Your task to perform on an android device: When is my next meeting? Image 0: 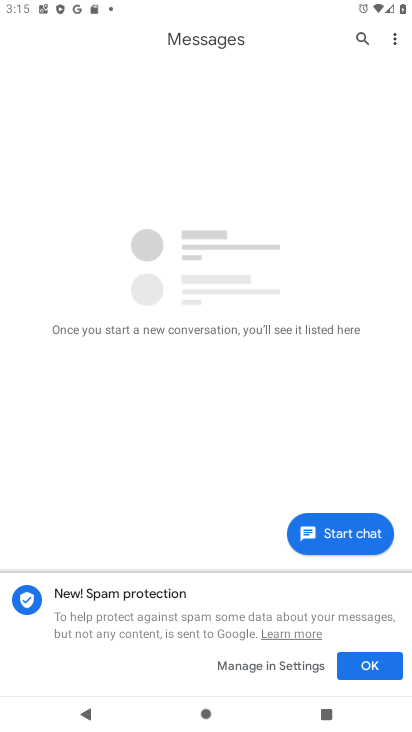
Step 0: press home button
Your task to perform on an android device: When is my next meeting? Image 1: 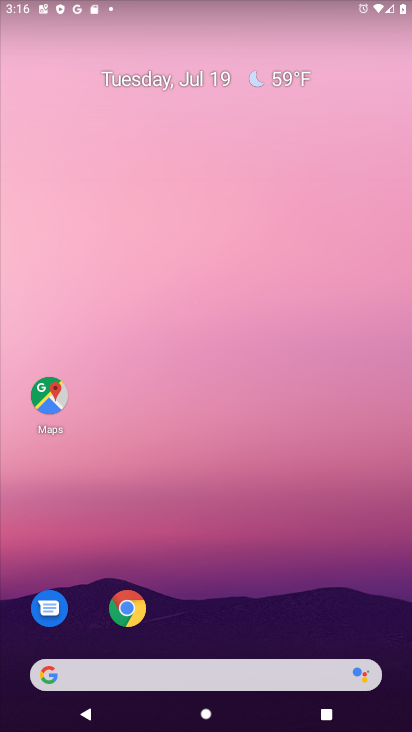
Step 1: drag from (277, 635) to (241, 165)
Your task to perform on an android device: When is my next meeting? Image 2: 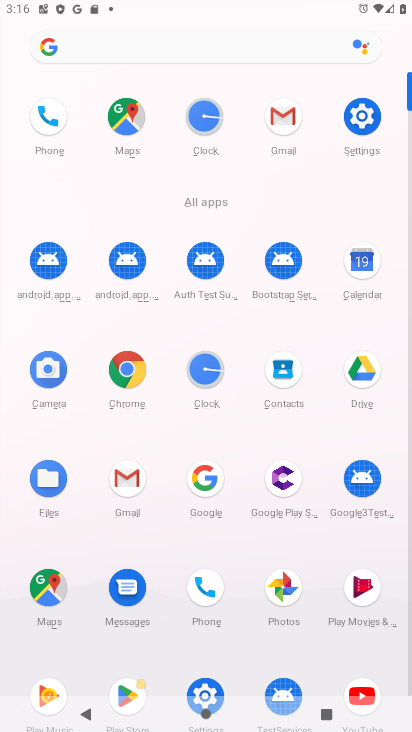
Step 2: click (365, 260)
Your task to perform on an android device: When is my next meeting? Image 3: 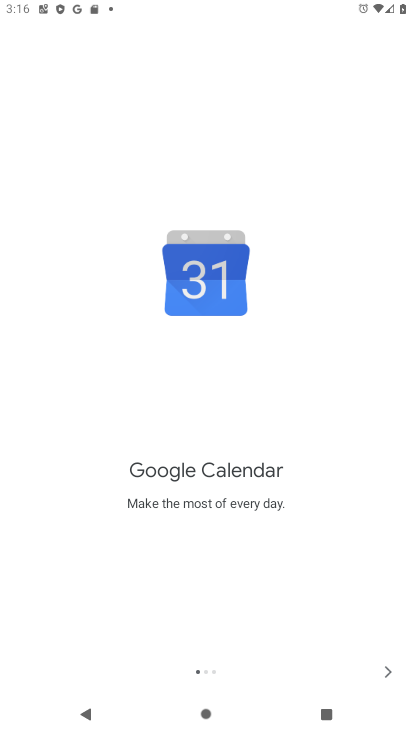
Step 3: click (388, 677)
Your task to perform on an android device: When is my next meeting? Image 4: 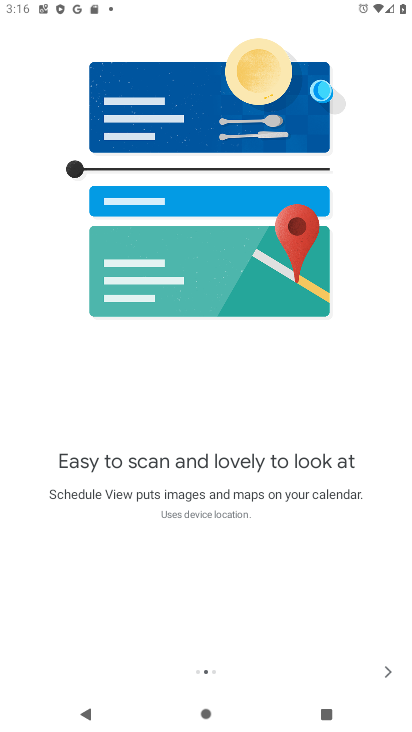
Step 4: click (388, 677)
Your task to perform on an android device: When is my next meeting? Image 5: 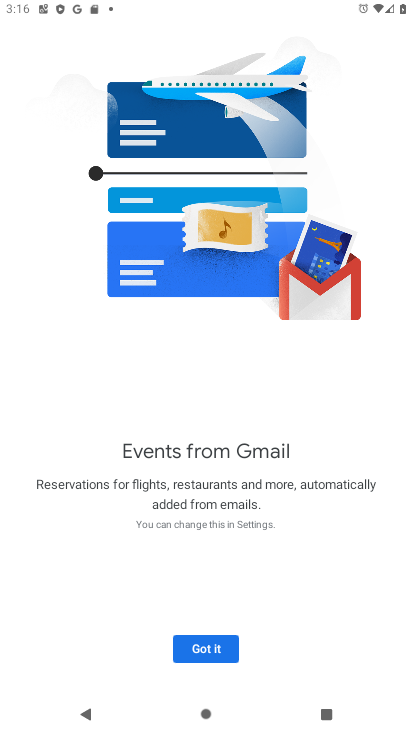
Step 5: click (219, 648)
Your task to perform on an android device: When is my next meeting? Image 6: 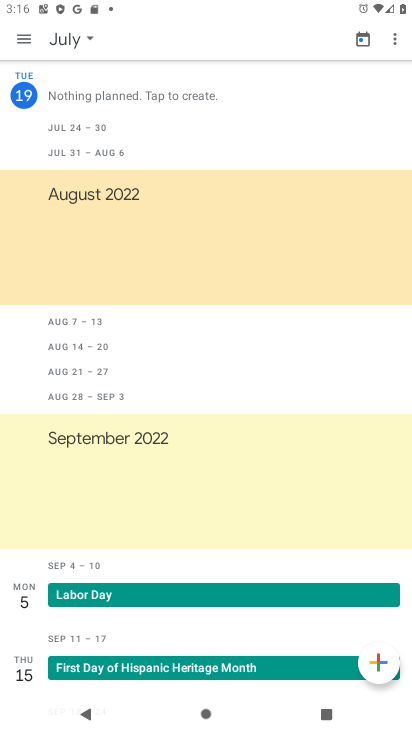
Step 6: click (19, 45)
Your task to perform on an android device: When is my next meeting? Image 7: 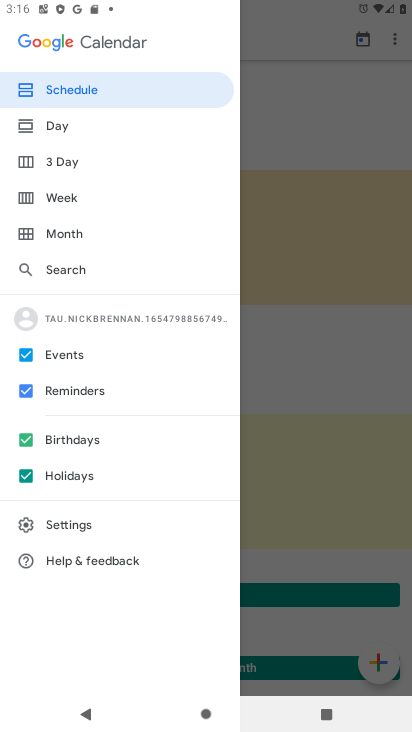
Step 7: click (68, 94)
Your task to perform on an android device: When is my next meeting? Image 8: 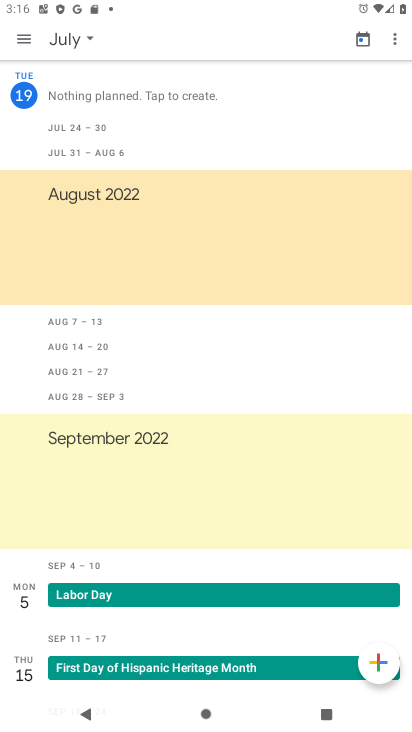
Step 8: task complete